Your task to perform on an android device: change the clock display to analog Image 0: 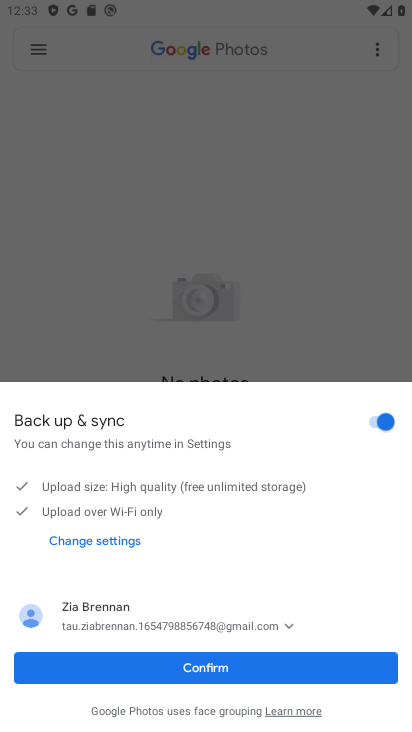
Step 0: press home button
Your task to perform on an android device: change the clock display to analog Image 1: 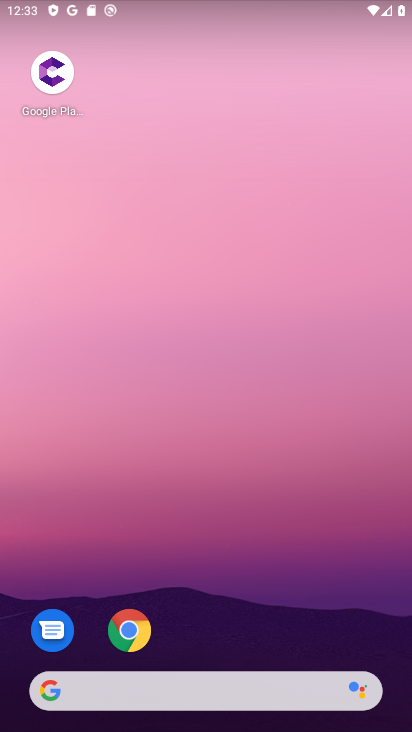
Step 1: drag from (320, 243) to (396, 717)
Your task to perform on an android device: change the clock display to analog Image 2: 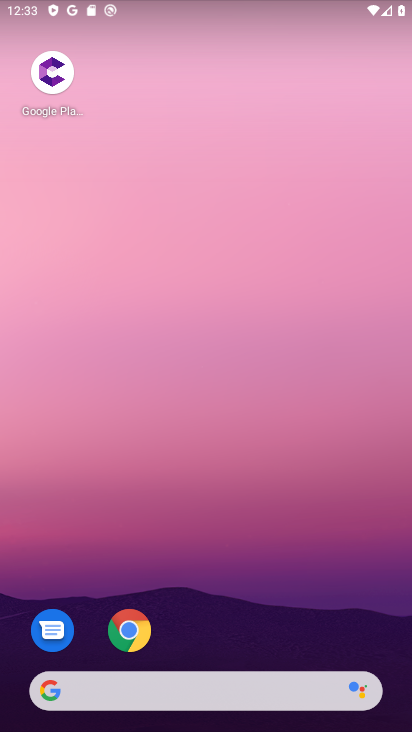
Step 2: drag from (306, 592) to (201, 0)
Your task to perform on an android device: change the clock display to analog Image 3: 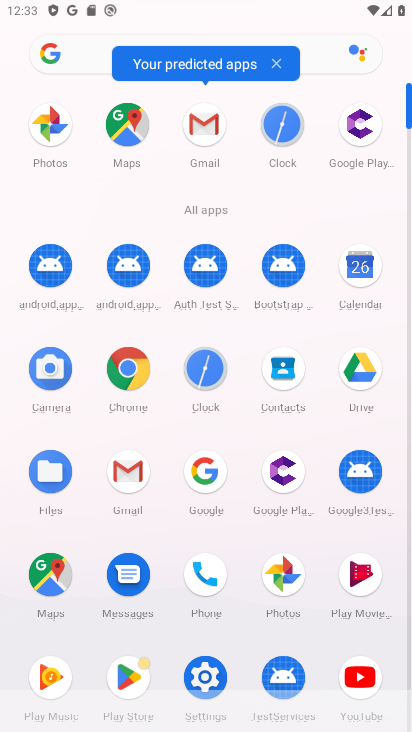
Step 3: click (284, 123)
Your task to perform on an android device: change the clock display to analog Image 4: 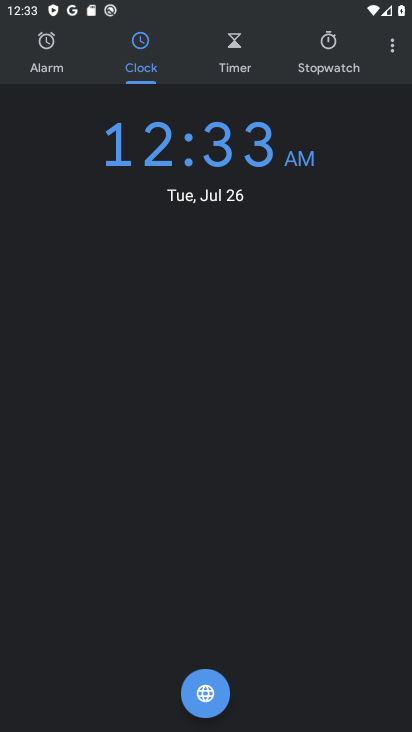
Step 4: click (385, 46)
Your task to perform on an android device: change the clock display to analog Image 5: 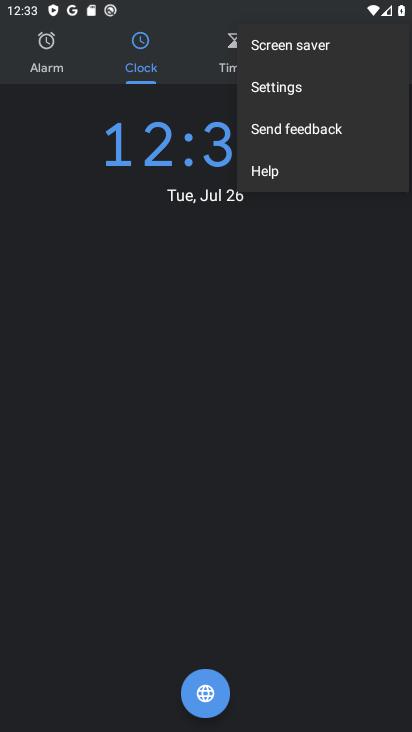
Step 5: click (273, 98)
Your task to perform on an android device: change the clock display to analog Image 6: 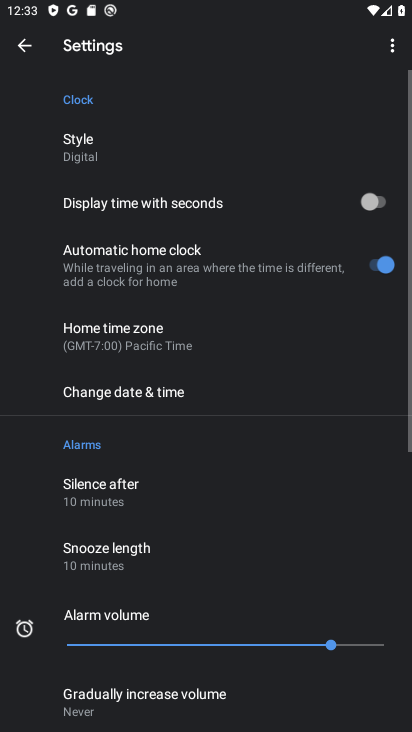
Step 6: click (94, 151)
Your task to perform on an android device: change the clock display to analog Image 7: 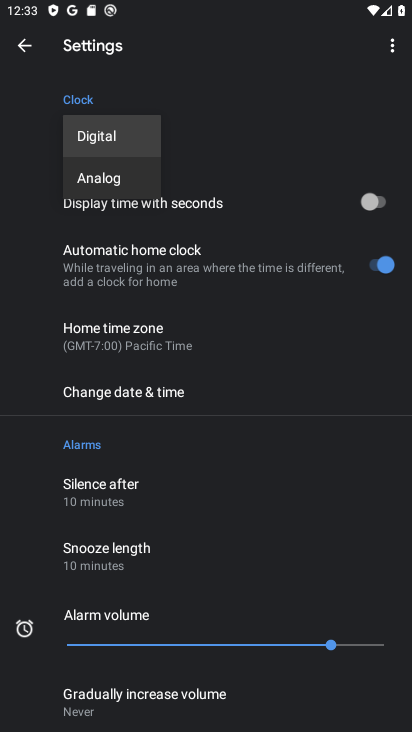
Step 7: click (129, 188)
Your task to perform on an android device: change the clock display to analog Image 8: 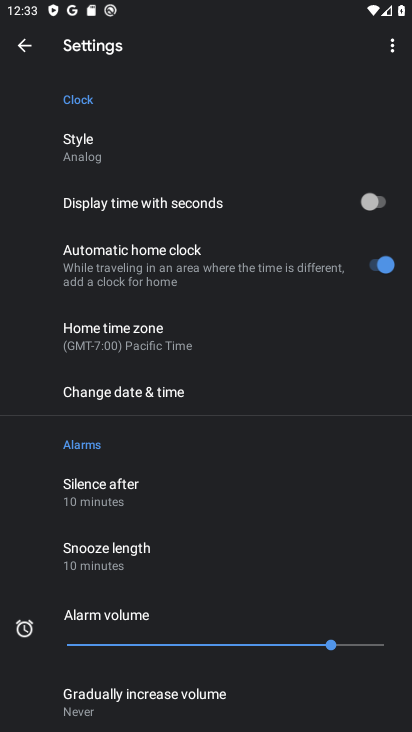
Step 8: task complete